Your task to perform on an android device: allow cookies in the chrome app Image 0: 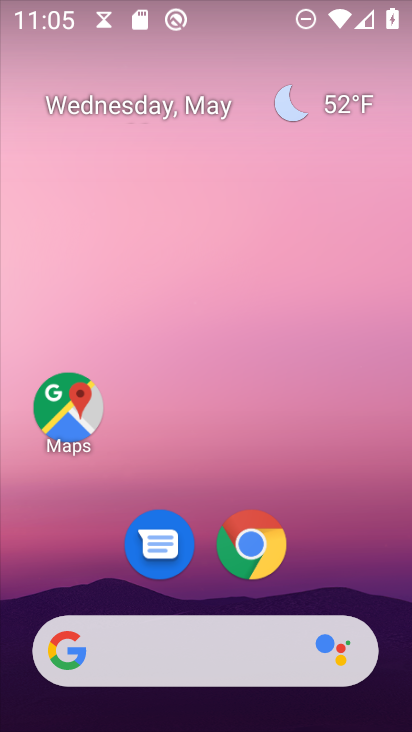
Step 0: click (255, 539)
Your task to perform on an android device: allow cookies in the chrome app Image 1: 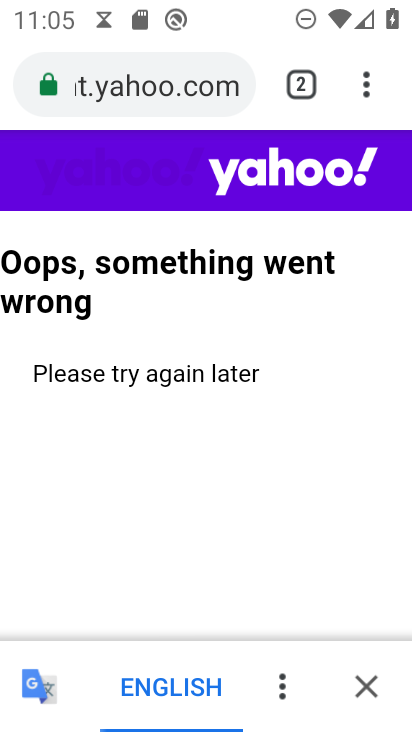
Step 1: click (382, 87)
Your task to perform on an android device: allow cookies in the chrome app Image 2: 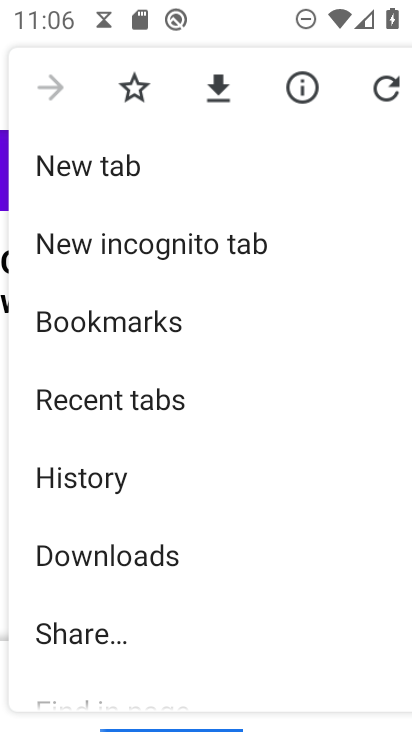
Step 2: drag from (167, 648) to (245, 149)
Your task to perform on an android device: allow cookies in the chrome app Image 3: 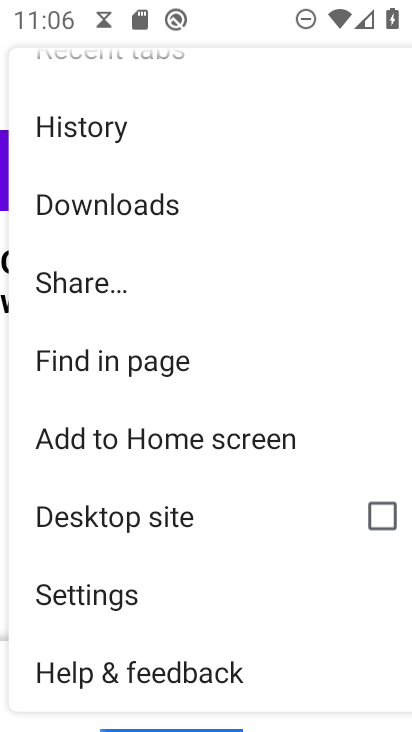
Step 3: click (156, 606)
Your task to perform on an android device: allow cookies in the chrome app Image 4: 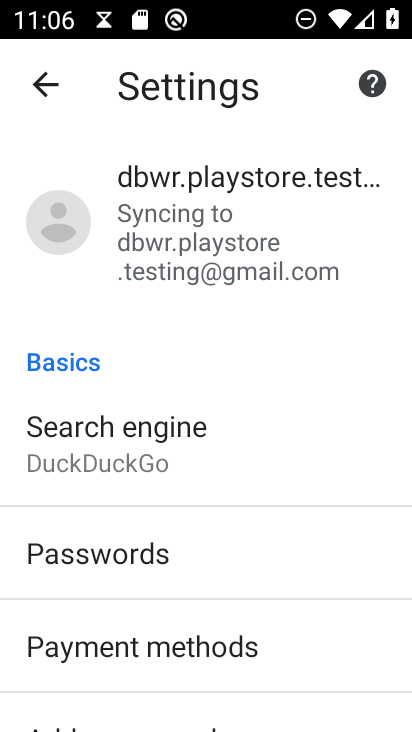
Step 4: drag from (156, 606) to (225, 232)
Your task to perform on an android device: allow cookies in the chrome app Image 5: 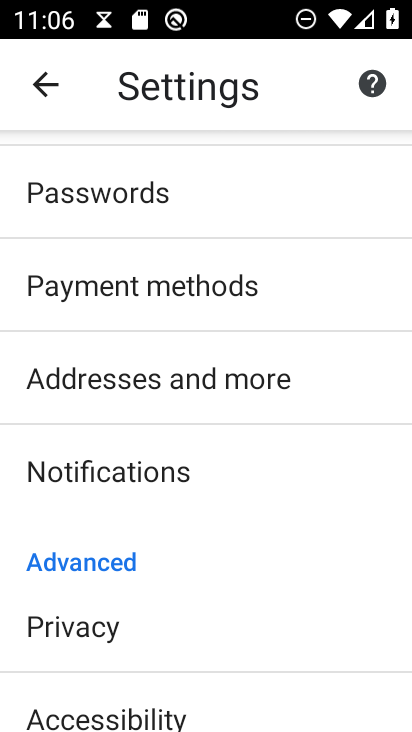
Step 5: drag from (142, 618) to (201, 176)
Your task to perform on an android device: allow cookies in the chrome app Image 6: 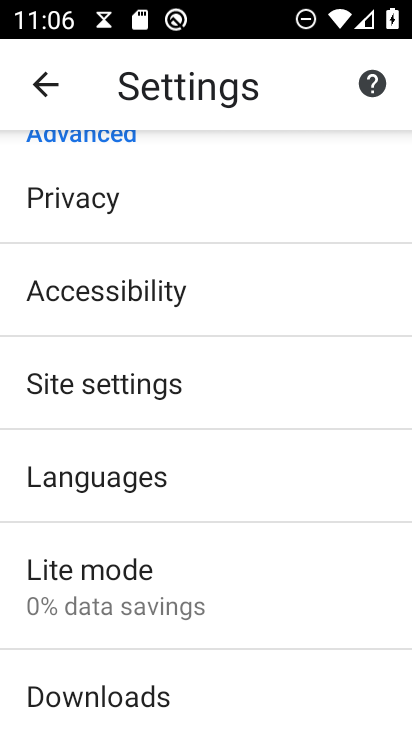
Step 6: click (146, 402)
Your task to perform on an android device: allow cookies in the chrome app Image 7: 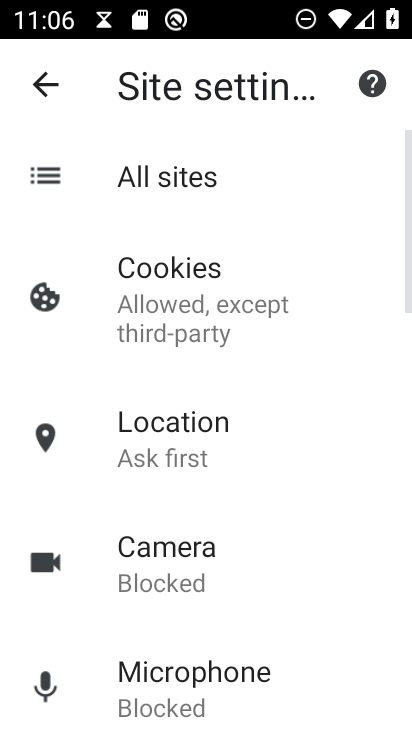
Step 7: click (234, 318)
Your task to perform on an android device: allow cookies in the chrome app Image 8: 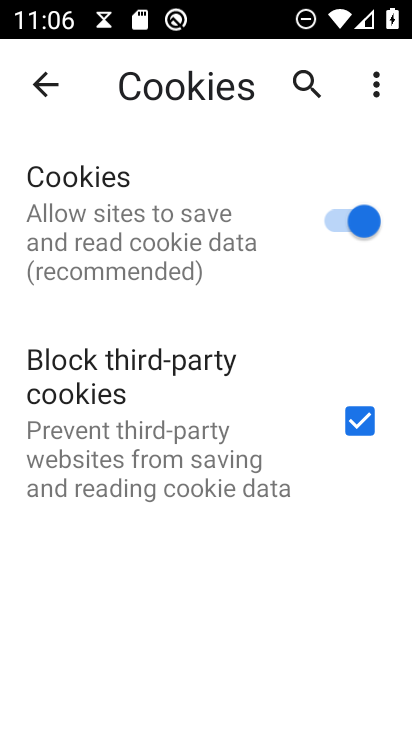
Step 8: task complete